Your task to perform on an android device: Open Google Image 0: 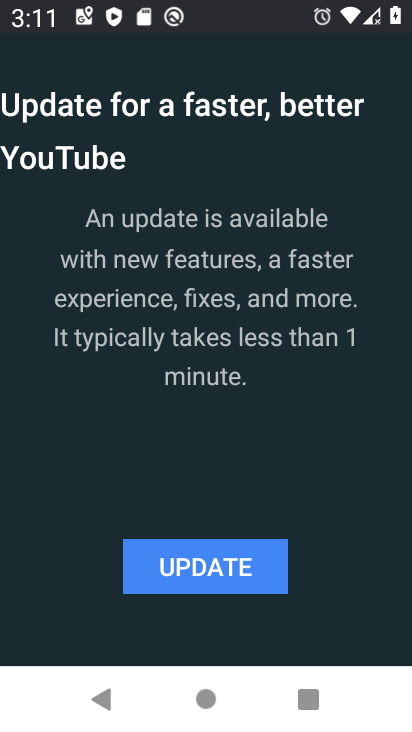
Step 0: press home button
Your task to perform on an android device: Open Google Image 1: 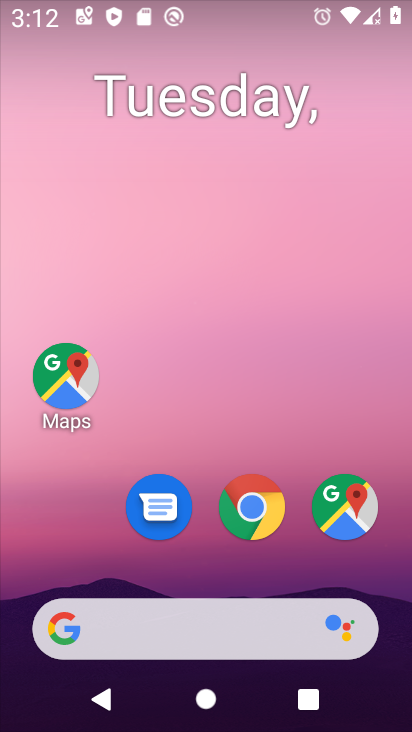
Step 1: drag from (289, 542) to (318, 106)
Your task to perform on an android device: Open Google Image 2: 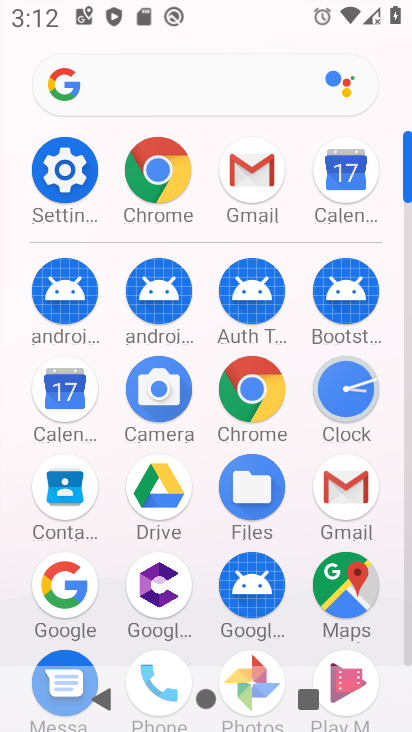
Step 2: click (53, 578)
Your task to perform on an android device: Open Google Image 3: 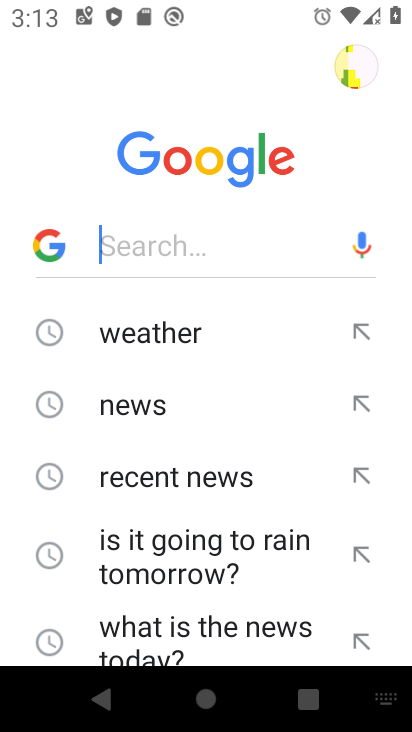
Step 3: task complete